Your task to perform on an android device: turn on notifications settings in the gmail app Image 0: 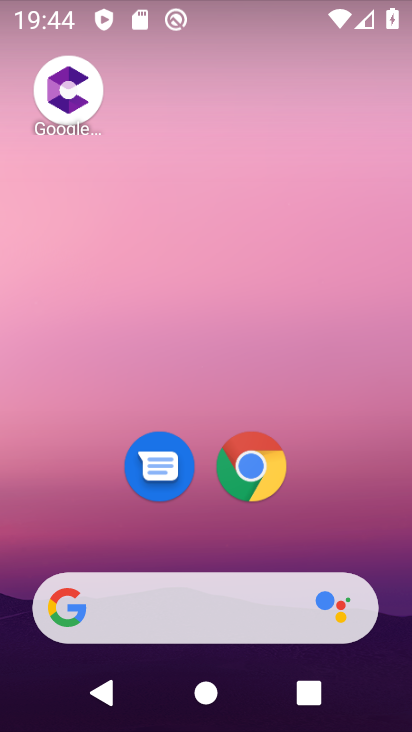
Step 0: drag from (357, 537) to (334, 61)
Your task to perform on an android device: turn on notifications settings in the gmail app Image 1: 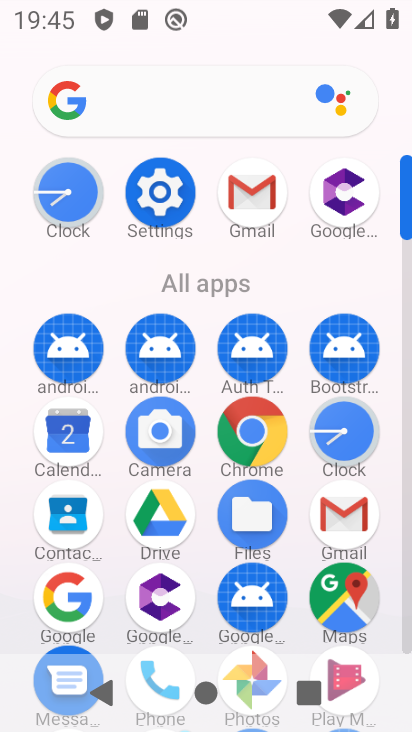
Step 1: click (269, 174)
Your task to perform on an android device: turn on notifications settings in the gmail app Image 2: 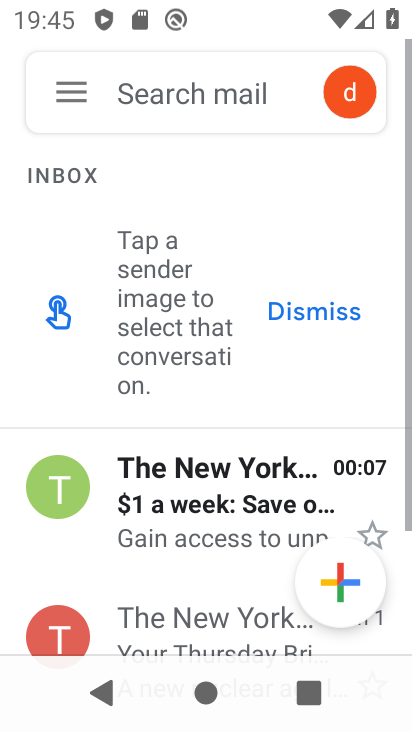
Step 2: click (67, 90)
Your task to perform on an android device: turn on notifications settings in the gmail app Image 3: 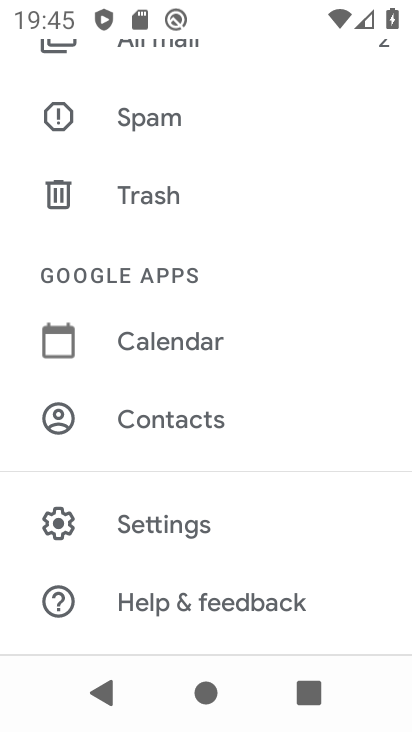
Step 3: click (154, 527)
Your task to perform on an android device: turn on notifications settings in the gmail app Image 4: 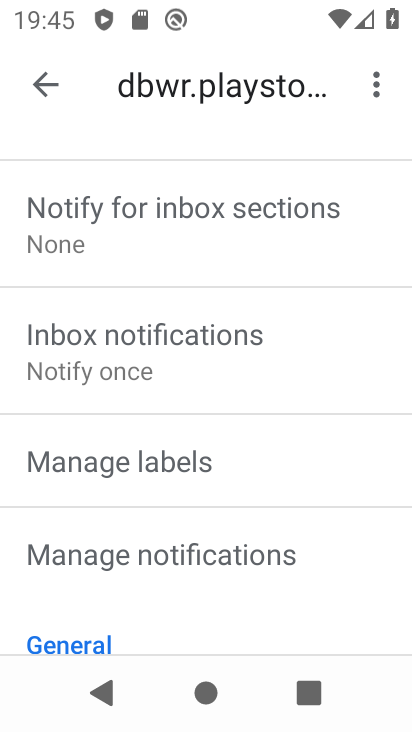
Step 4: click (210, 553)
Your task to perform on an android device: turn on notifications settings in the gmail app Image 5: 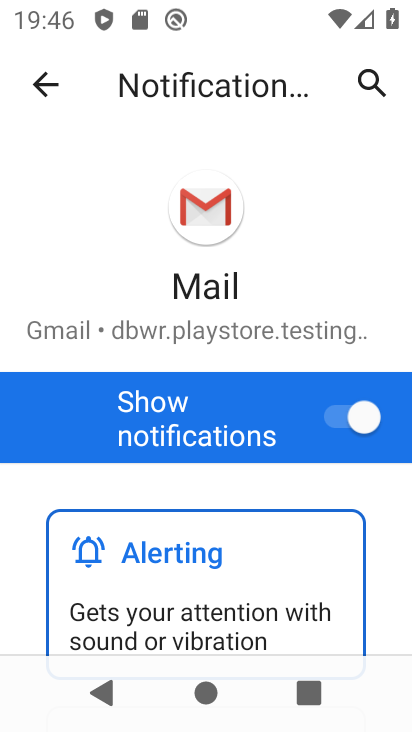
Step 5: task complete